Your task to perform on an android device: open app "Google Docs" Image 0: 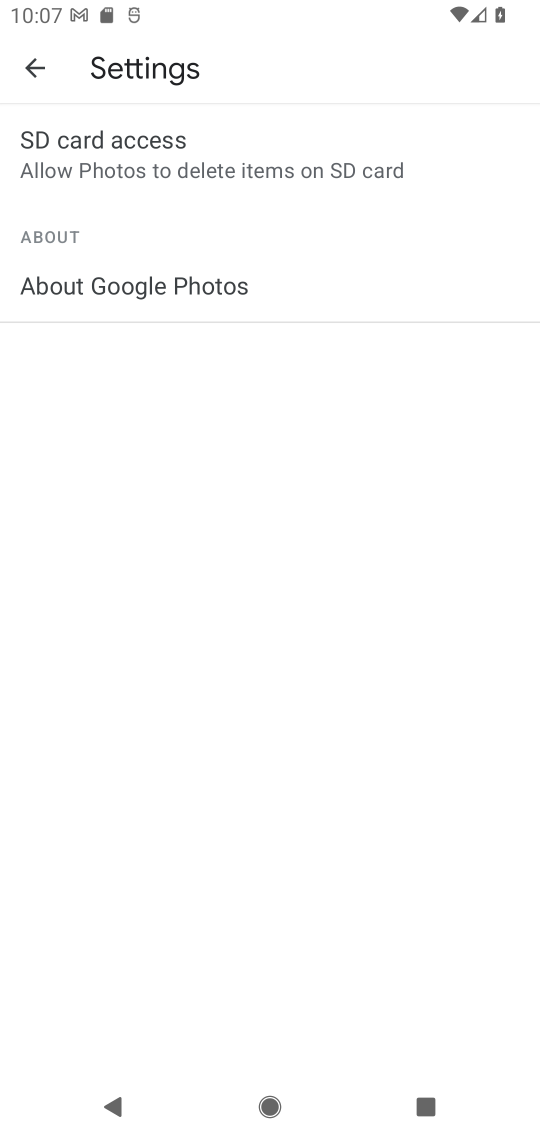
Step 0: press home button
Your task to perform on an android device: open app "Google Docs" Image 1: 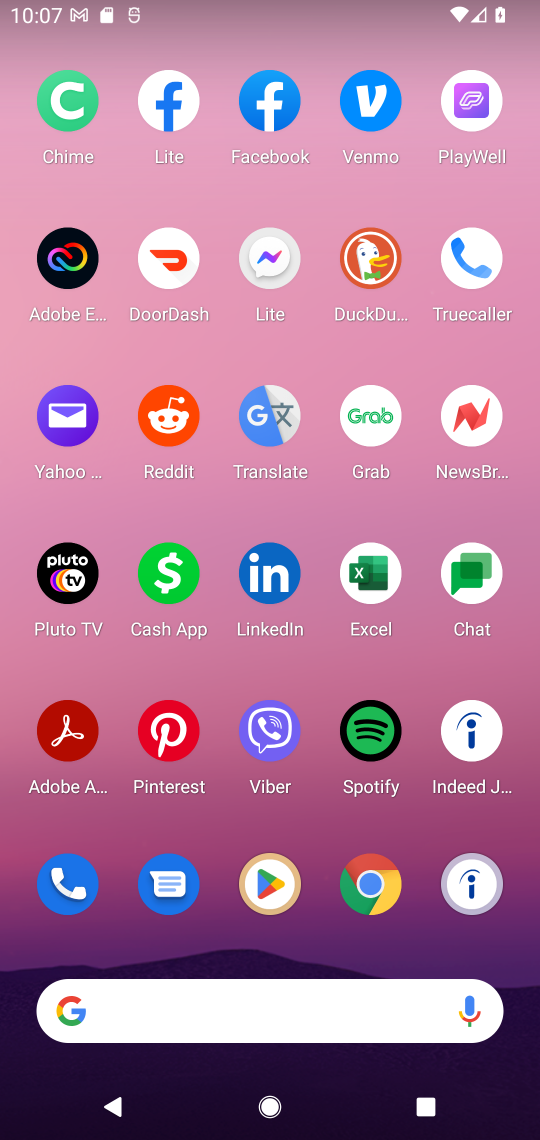
Step 1: click (272, 871)
Your task to perform on an android device: open app "Google Docs" Image 2: 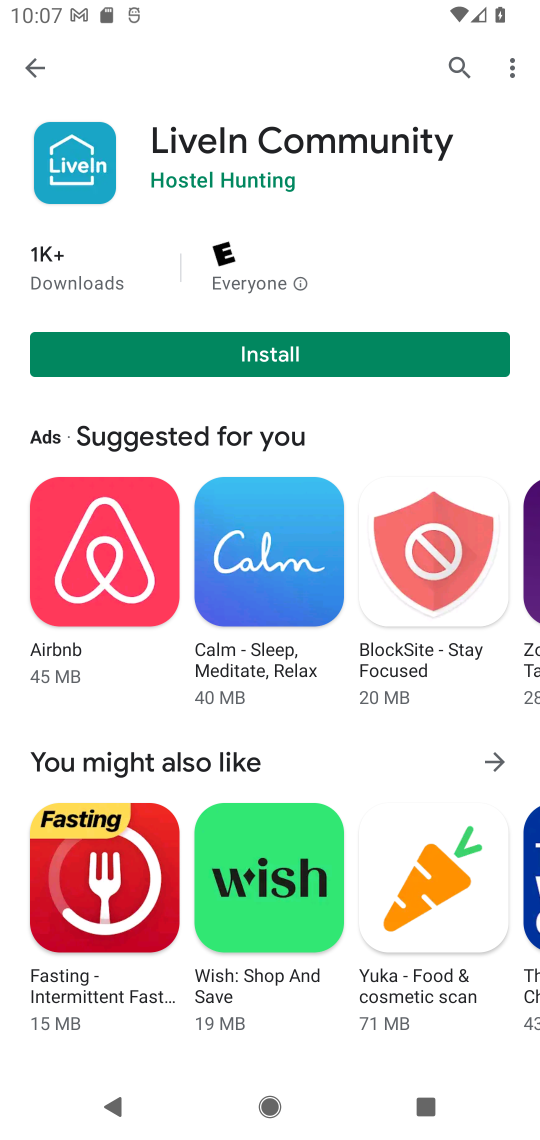
Step 2: click (299, 351)
Your task to perform on an android device: open app "Google Docs" Image 3: 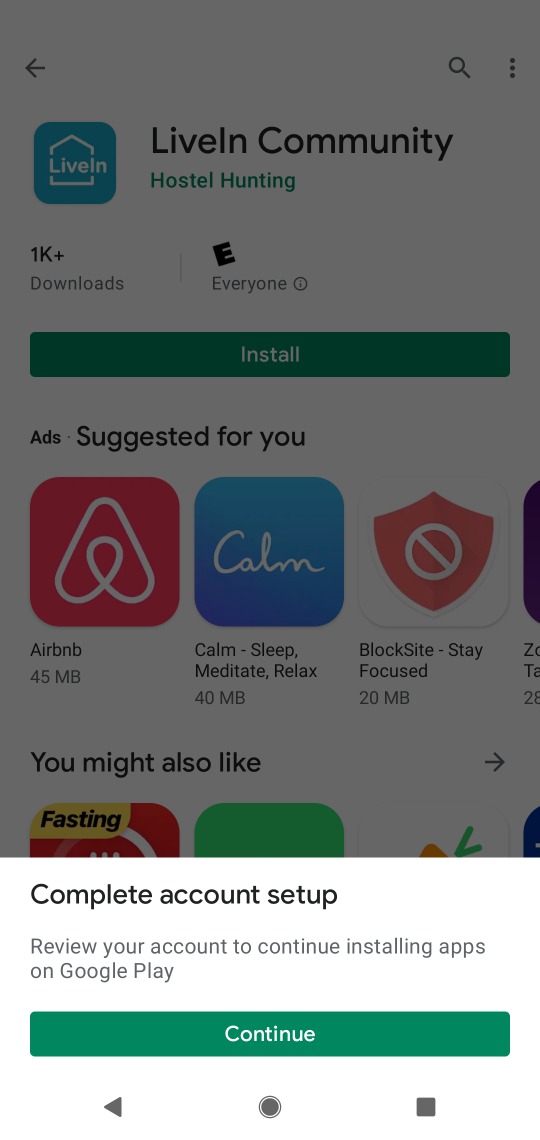
Step 3: click (199, 1021)
Your task to perform on an android device: open app "Google Docs" Image 4: 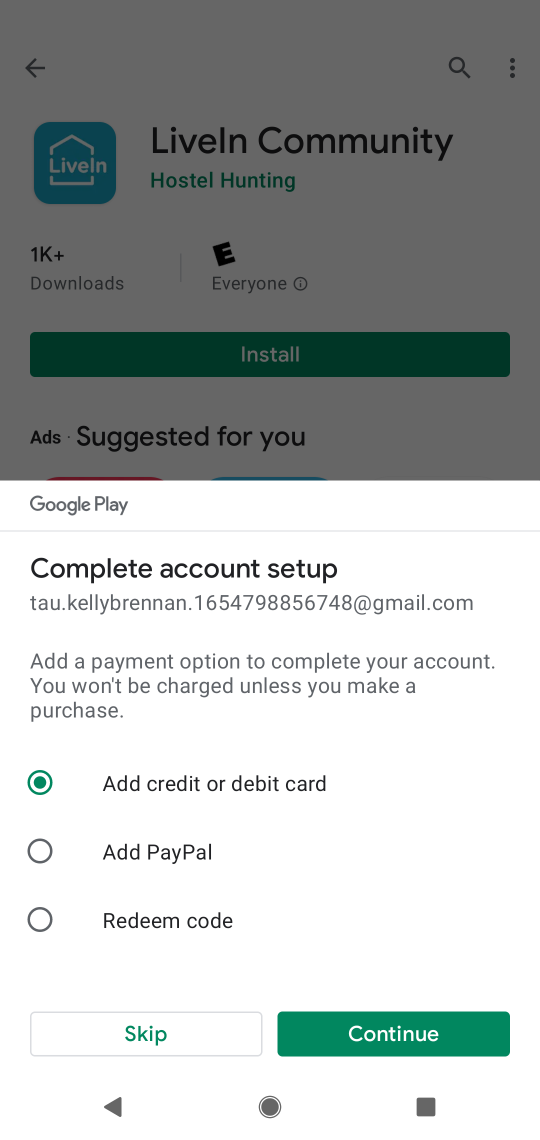
Step 4: click (243, 1033)
Your task to perform on an android device: open app "Google Docs" Image 5: 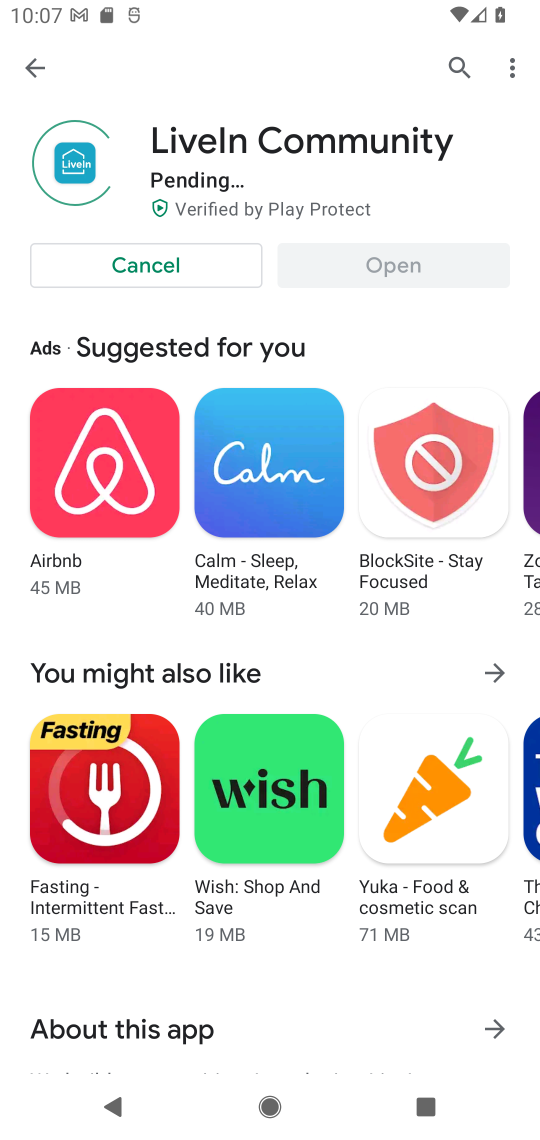
Step 5: click (457, 70)
Your task to perform on an android device: open app "Google Docs" Image 6: 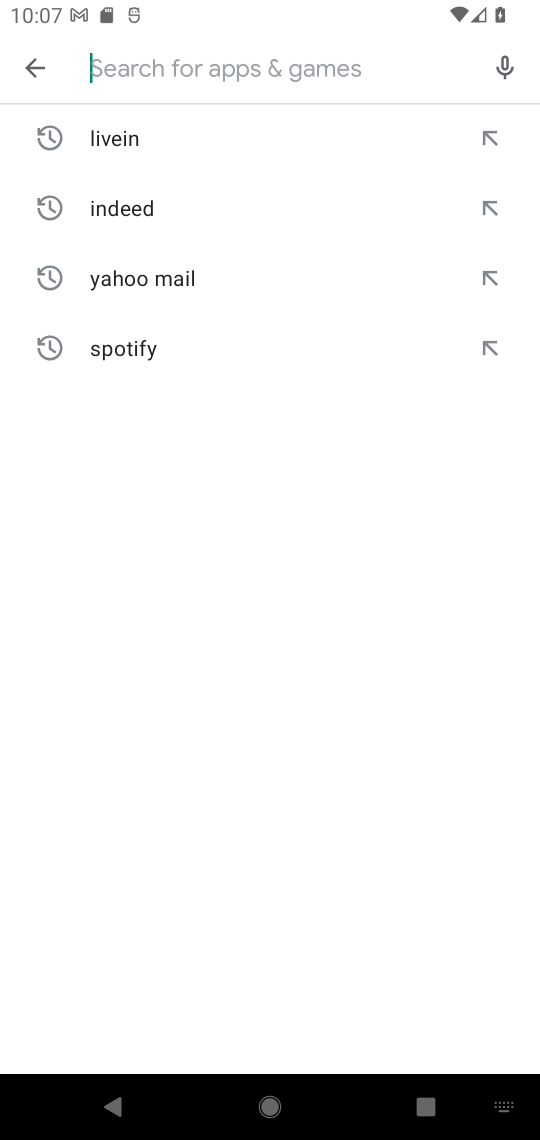
Step 6: type "google doc"
Your task to perform on an android device: open app "Google Docs" Image 7: 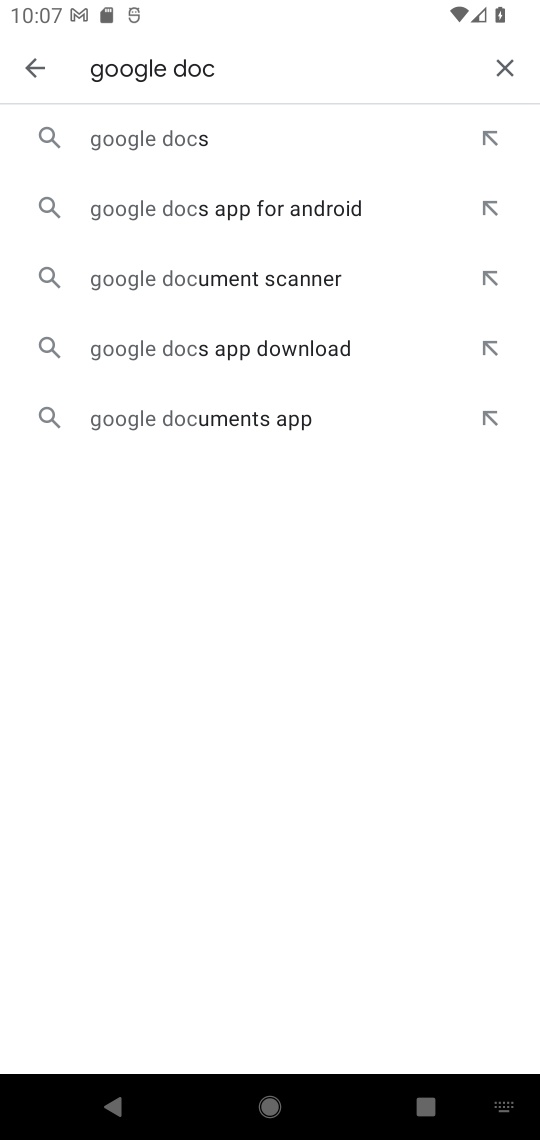
Step 7: click (149, 129)
Your task to perform on an android device: open app "Google Docs" Image 8: 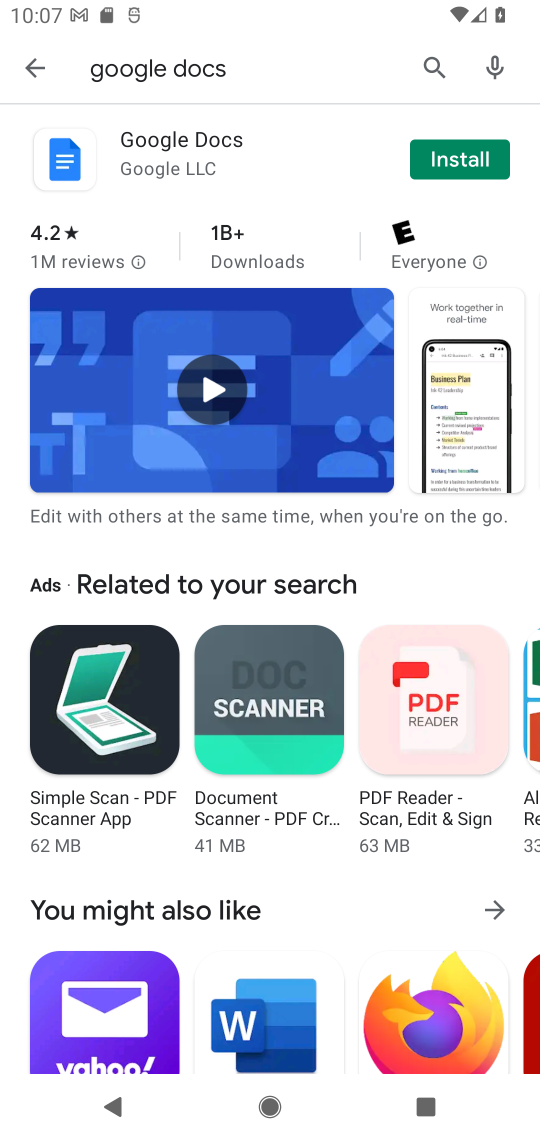
Step 8: click (402, 174)
Your task to perform on an android device: open app "Google Docs" Image 9: 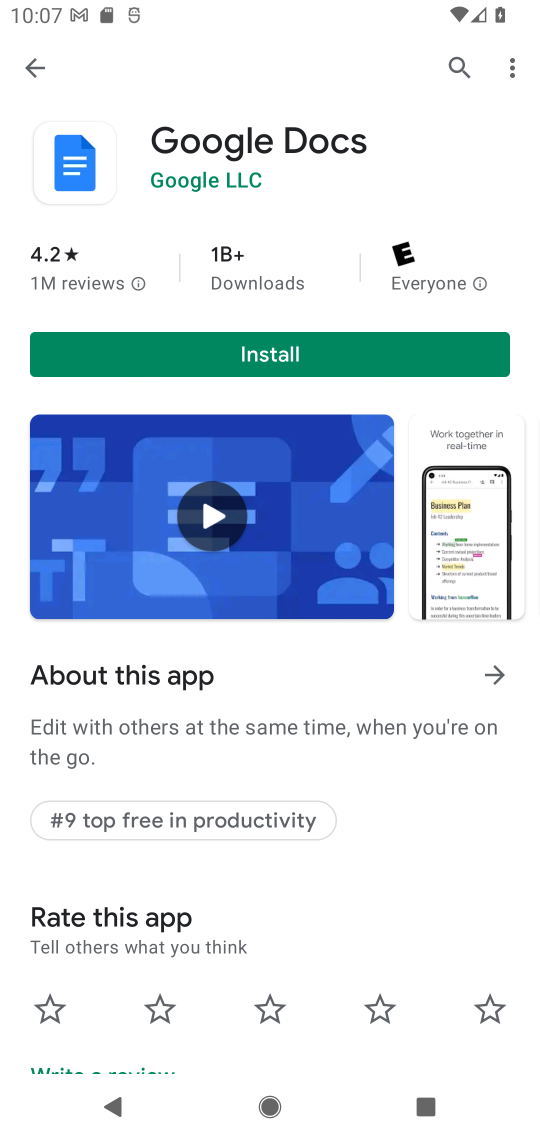
Step 9: task complete